Your task to perform on an android device: Open Google Maps and go to "Timeline" Image 0: 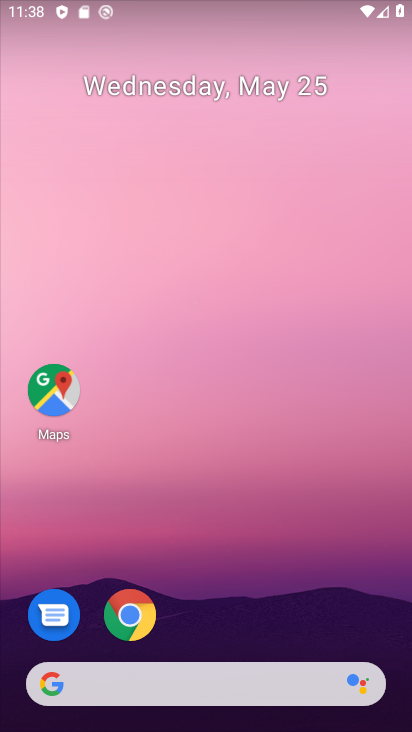
Step 0: drag from (332, 614) to (300, 91)
Your task to perform on an android device: Open Google Maps and go to "Timeline" Image 1: 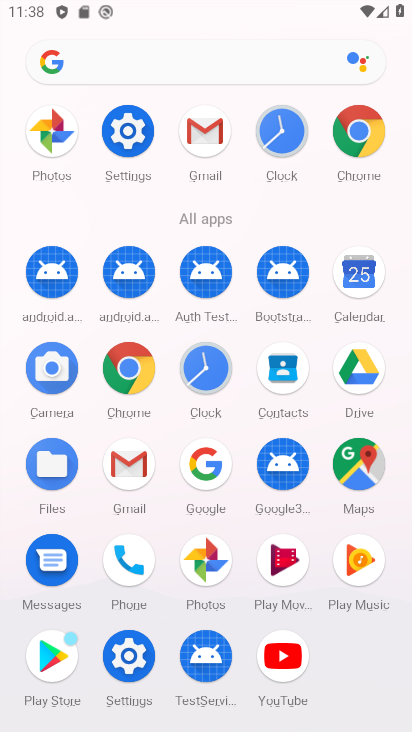
Step 1: click (362, 480)
Your task to perform on an android device: Open Google Maps and go to "Timeline" Image 2: 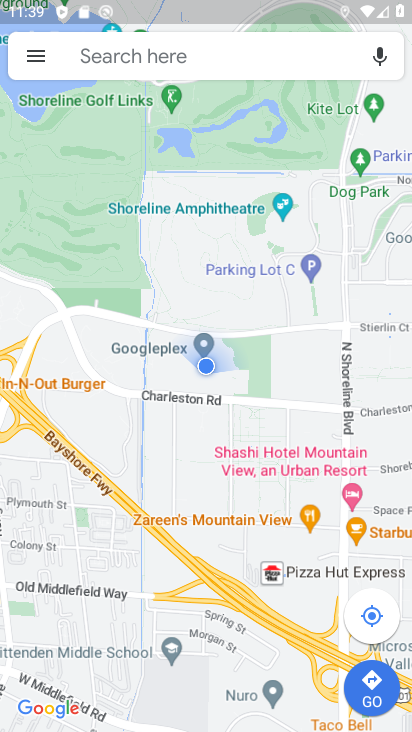
Step 2: click (30, 45)
Your task to perform on an android device: Open Google Maps and go to "Timeline" Image 3: 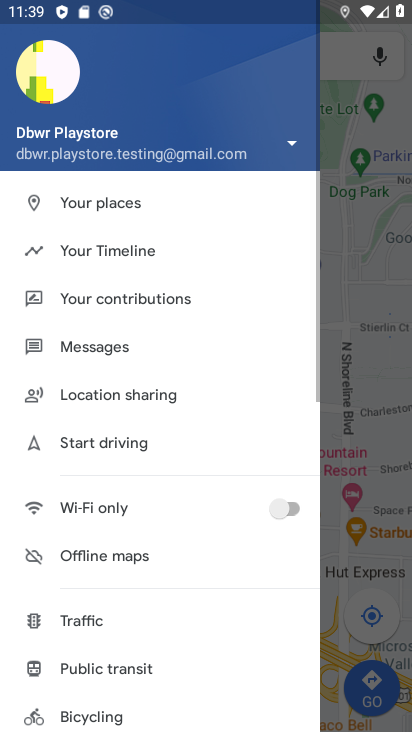
Step 3: click (150, 245)
Your task to perform on an android device: Open Google Maps and go to "Timeline" Image 4: 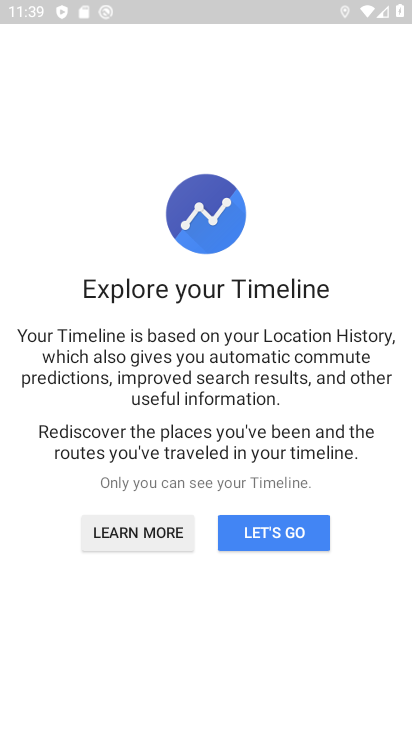
Step 4: task complete